Your task to perform on an android device: find photos in the google photos app Image 0: 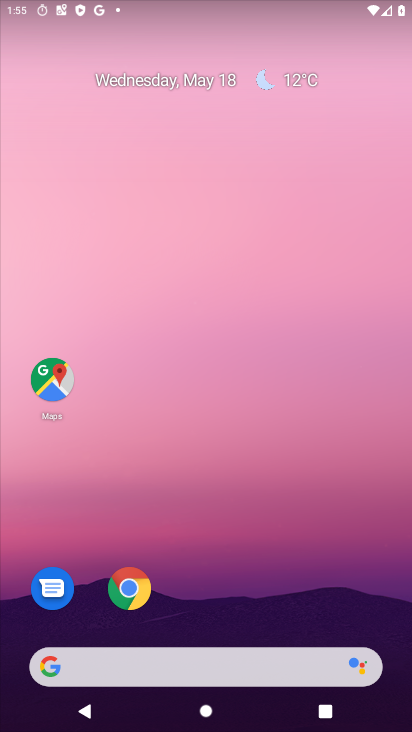
Step 0: click (259, 86)
Your task to perform on an android device: find photos in the google photos app Image 1: 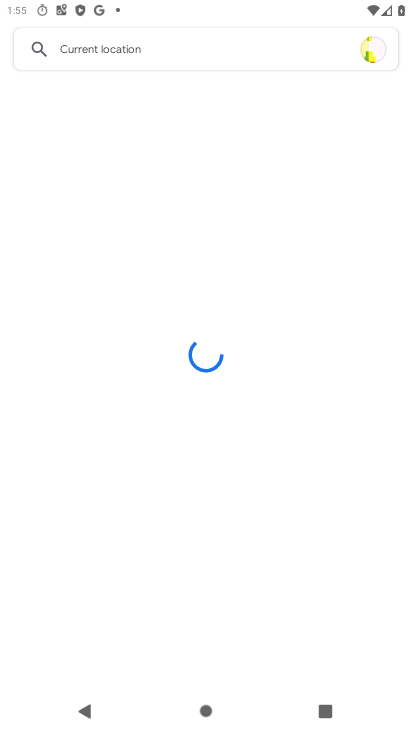
Step 1: press home button
Your task to perform on an android device: find photos in the google photos app Image 2: 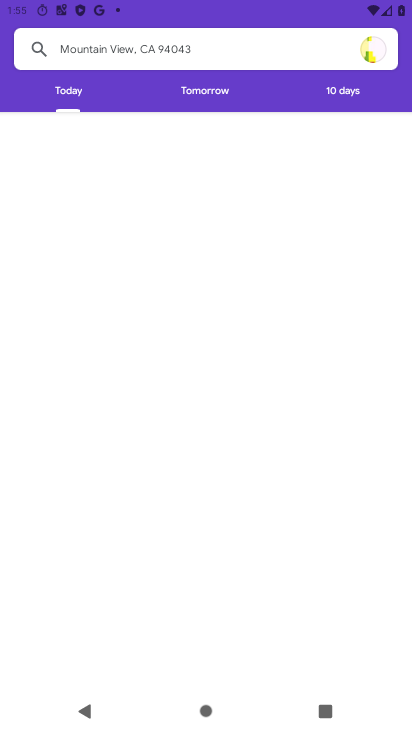
Step 2: drag from (175, 607) to (200, 119)
Your task to perform on an android device: find photos in the google photos app Image 3: 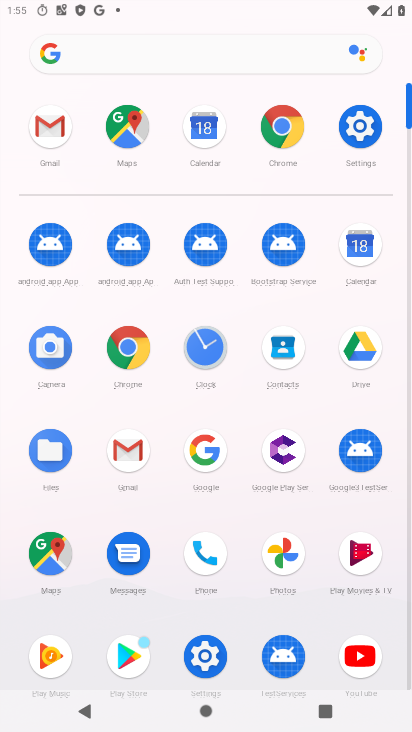
Step 3: click (282, 556)
Your task to perform on an android device: find photos in the google photos app Image 4: 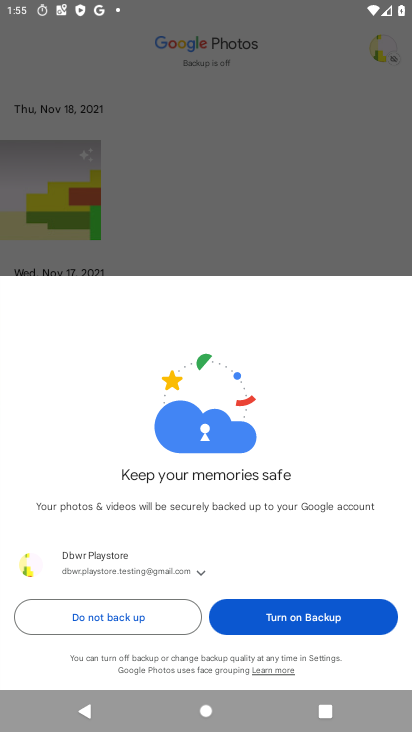
Step 4: press back button
Your task to perform on an android device: find photos in the google photos app Image 5: 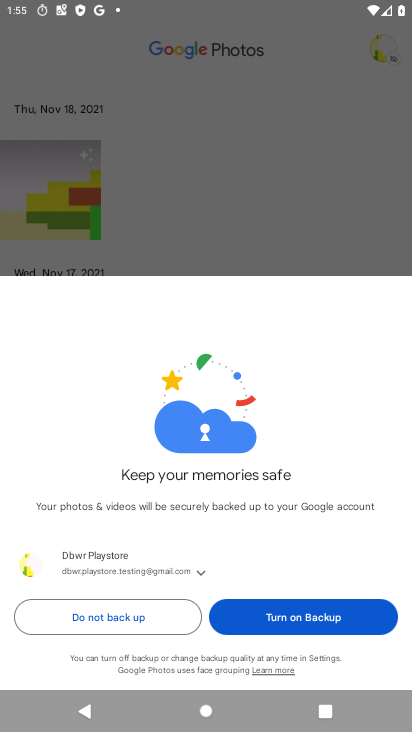
Step 5: click (293, 608)
Your task to perform on an android device: find photos in the google photos app Image 6: 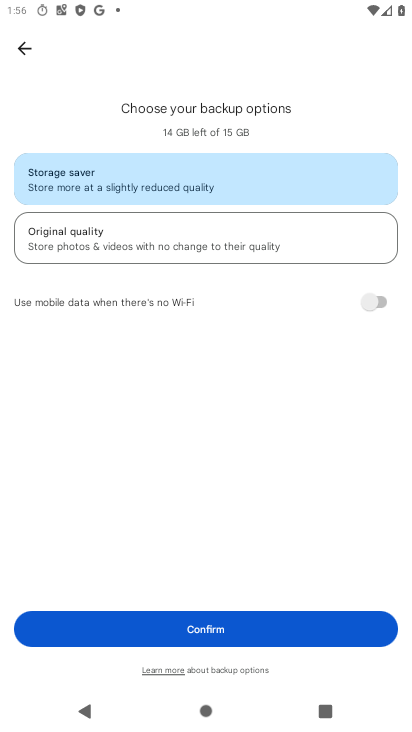
Step 6: press back button
Your task to perform on an android device: find photos in the google photos app Image 7: 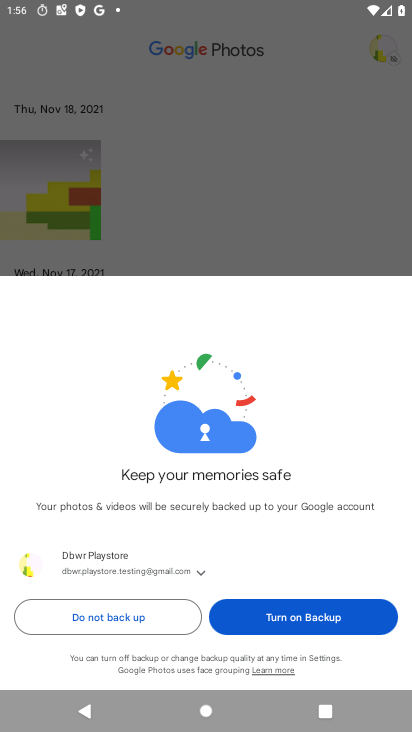
Step 7: click (130, 630)
Your task to perform on an android device: find photos in the google photos app Image 8: 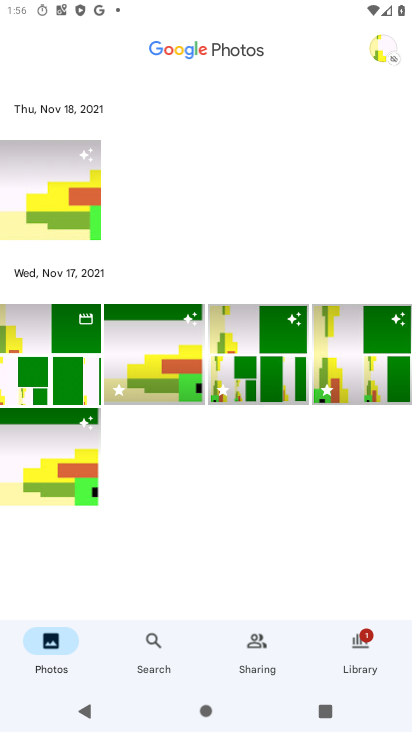
Step 8: click (47, 366)
Your task to perform on an android device: find photos in the google photos app Image 9: 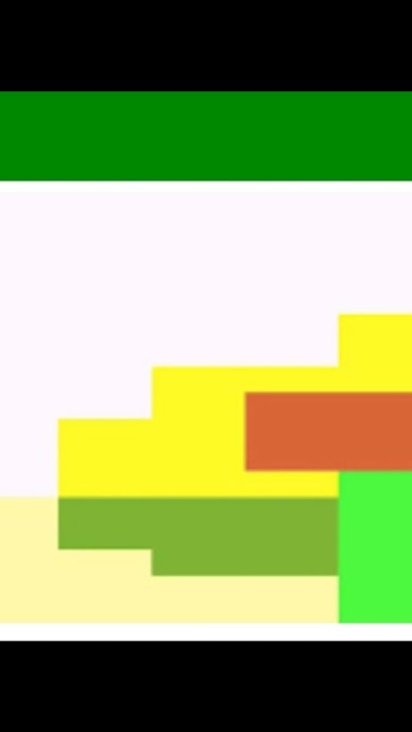
Step 9: drag from (336, 428) to (7, 481)
Your task to perform on an android device: find photos in the google photos app Image 10: 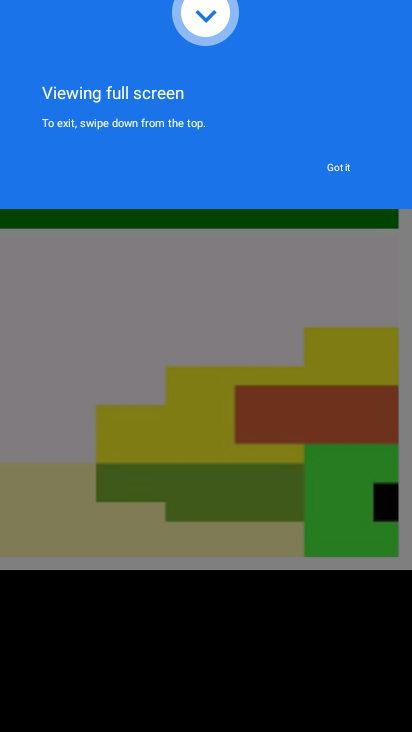
Step 10: drag from (367, 530) to (4, 524)
Your task to perform on an android device: find photos in the google photos app Image 11: 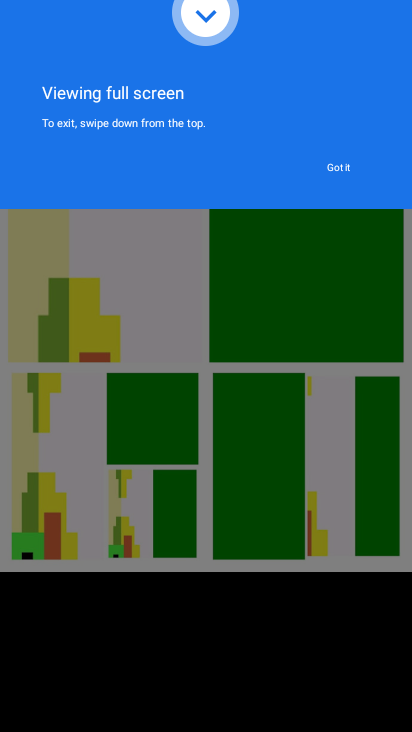
Step 11: drag from (332, 412) to (48, 384)
Your task to perform on an android device: find photos in the google photos app Image 12: 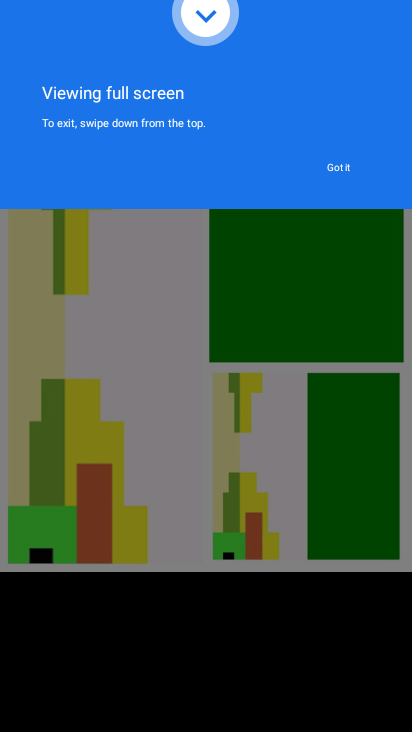
Step 12: click (345, 160)
Your task to perform on an android device: find photos in the google photos app Image 13: 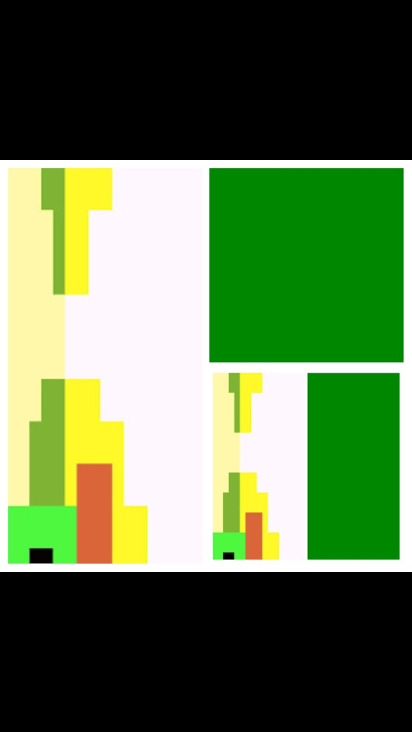
Step 13: task complete